Your task to perform on an android device: delete location history Image 0: 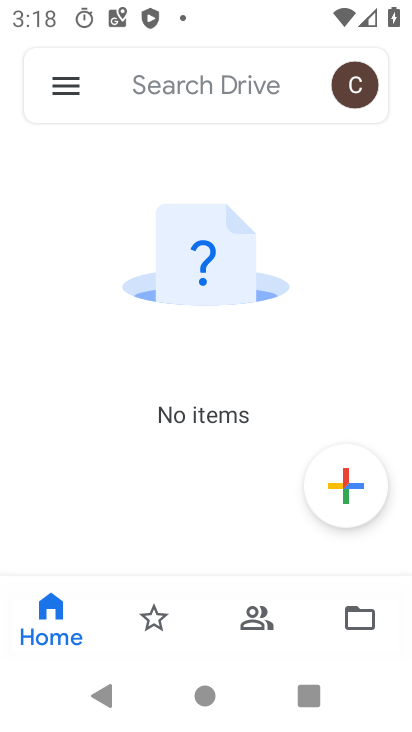
Step 0: press home button
Your task to perform on an android device: delete location history Image 1: 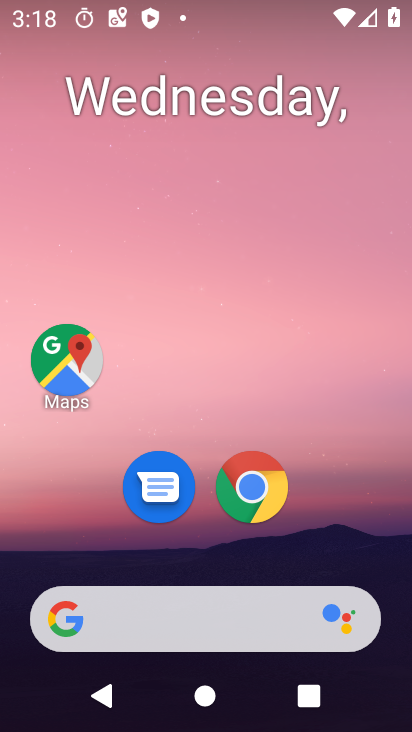
Step 1: drag from (138, 554) to (102, 190)
Your task to perform on an android device: delete location history Image 2: 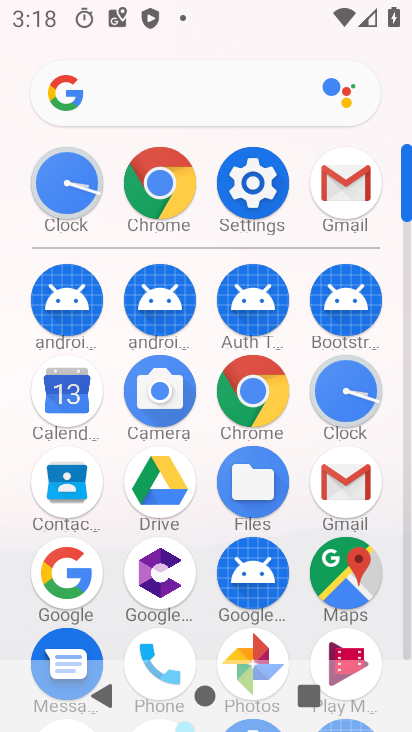
Step 2: click (271, 194)
Your task to perform on an android device: delete location history Image 3: 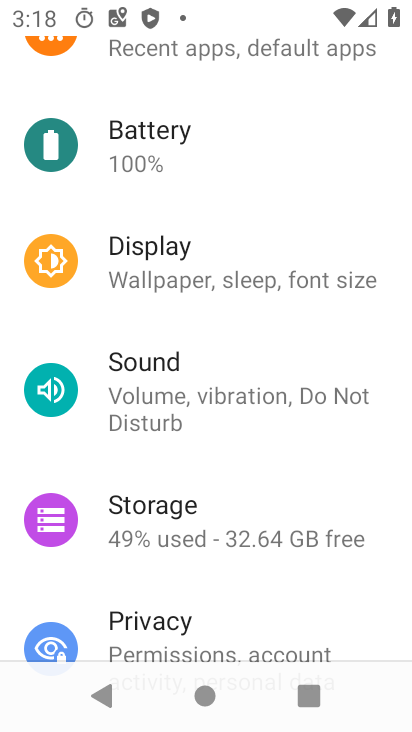
Step 3: drag from (182, 549) to (152, 183)
Your task to perform on an android device: delete location history Image 4: 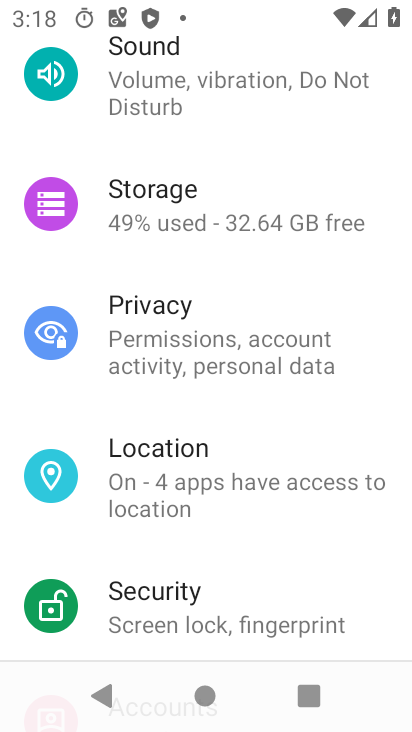
Step 4: click (240, 484)
Your task to perform on an android device: delete location history Image 5: 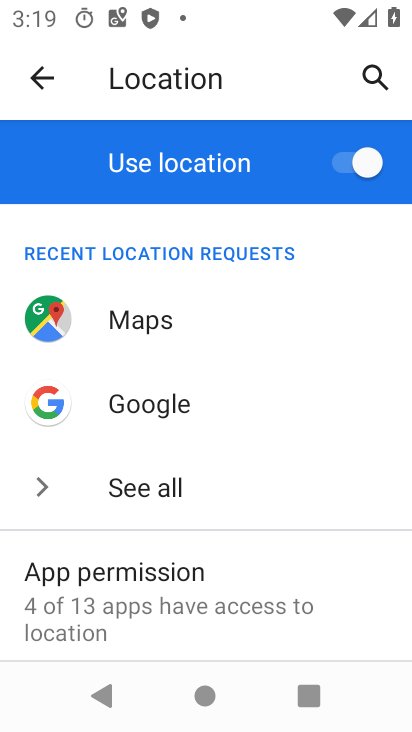
Step 5: drag from (167, 538) to (157, 273)
Your task to perform on an android device: delete location history Image 6: 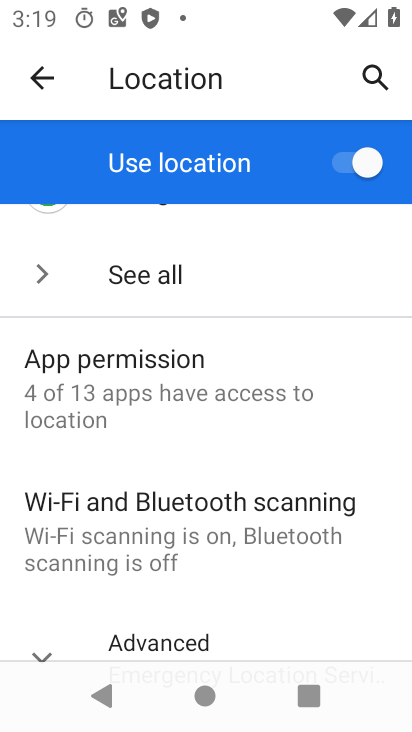
Step 6: click (168, 640)
Your task to perform on an android device: delete location history Image 7: 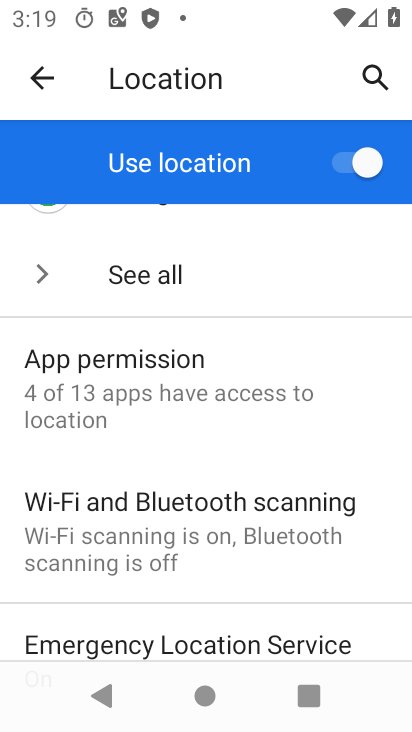
Step 7: drag from (257, 557) to (206, 158)
Your task to perform on an android device: delete location history Image 8: 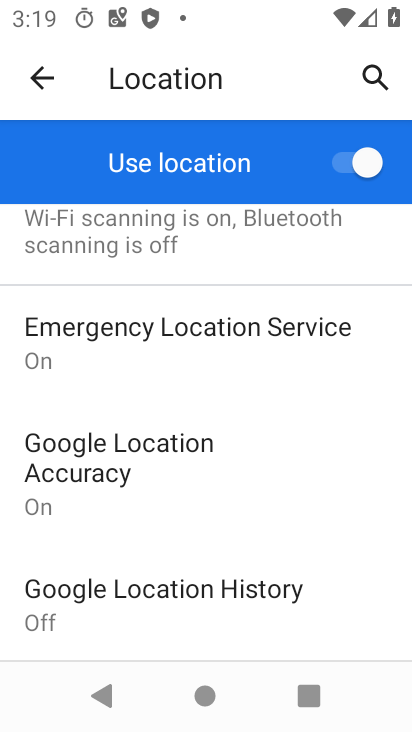
Step 8: click (211, 607)
Your task to perform on an android device: delete location history Image 9: 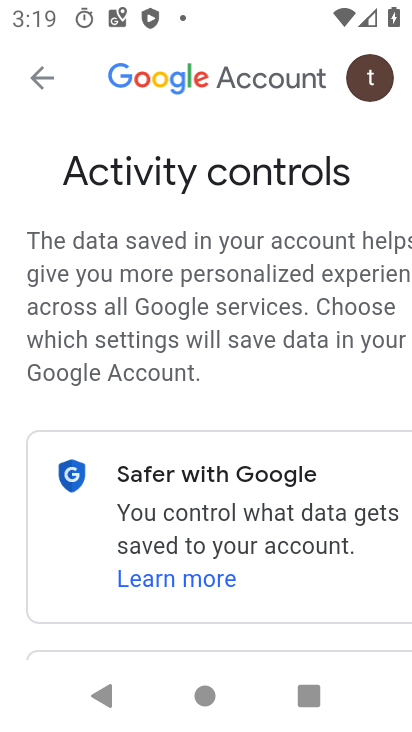
Step 9: drag from (264, 549) to (200, 100)
Your task to perform on an android device: delete location history Image 10: 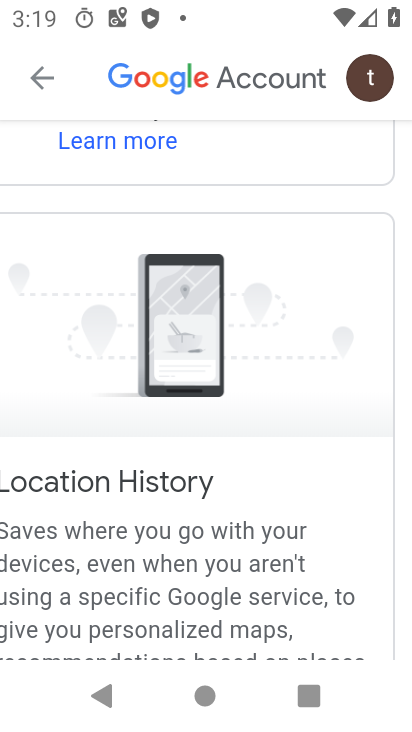
Step 10: drag from (206, 561) to (300, 119)
Your task to perform on an android device: delete location history Image 11: 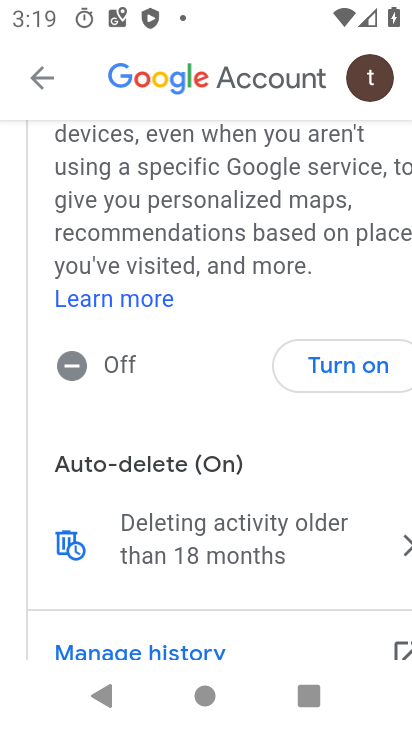
Step 11: drag from (214, 547) to (144, 353)
Your task to perform on an android device: delete location history Image 12: 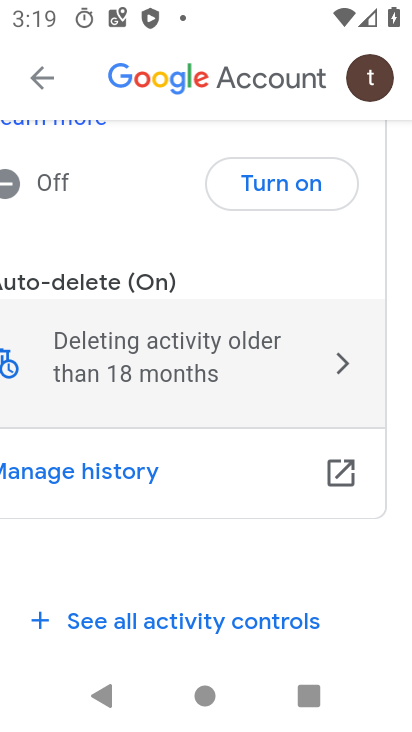
Step 12: click (284, 363)
Your task to perform on an android device: delete location history Image 13: 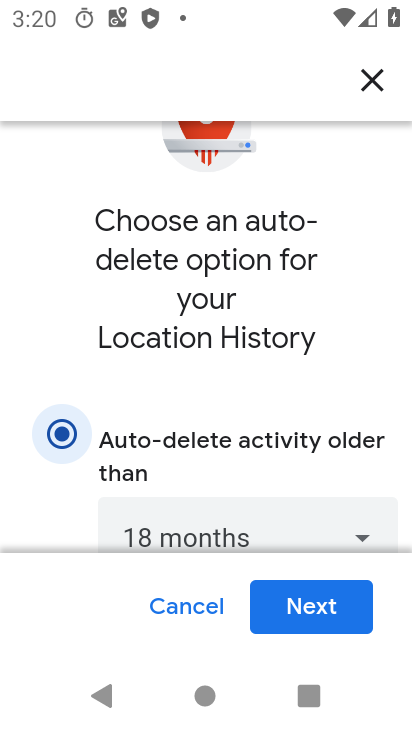
Step 13: click (308, 594)
Your task to perform on an android device: delete location history Image 14: 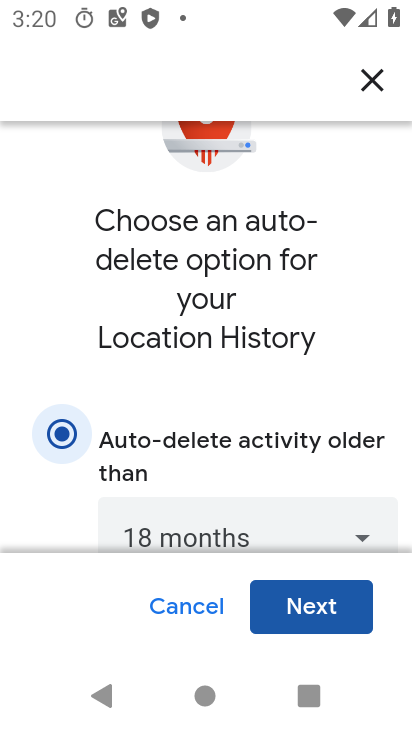
Step 14: click (328, 613)
Your task to perform on an android device: delete location history Image 15: 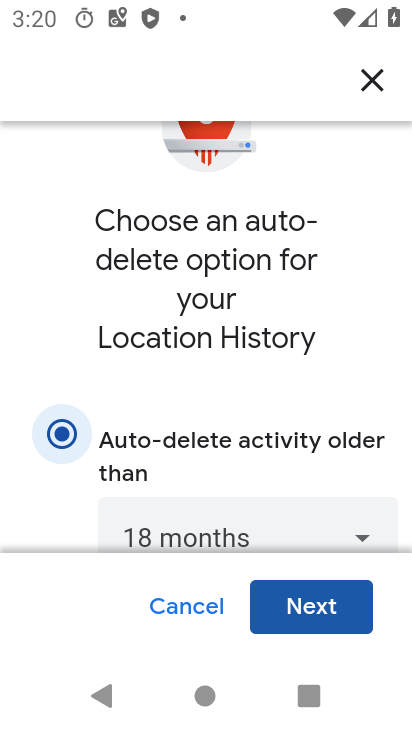
Step 15: click (328, 613)
Your task to perform on an android device: delete location history Image 16: 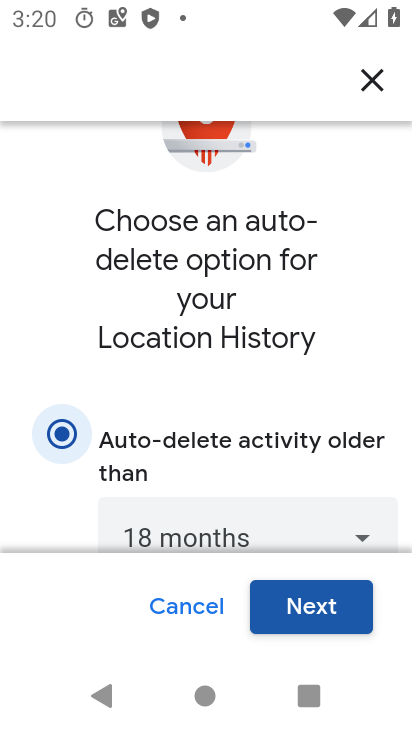
Step 16: click (328, 613)
Your task to perform on an android device: delete location history Image 17: 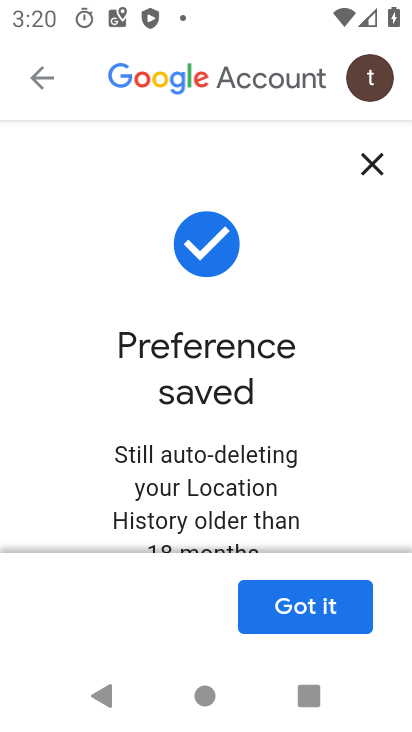
Step 17: task complete